Your task to perform on an android device: Go to Google Image 0: 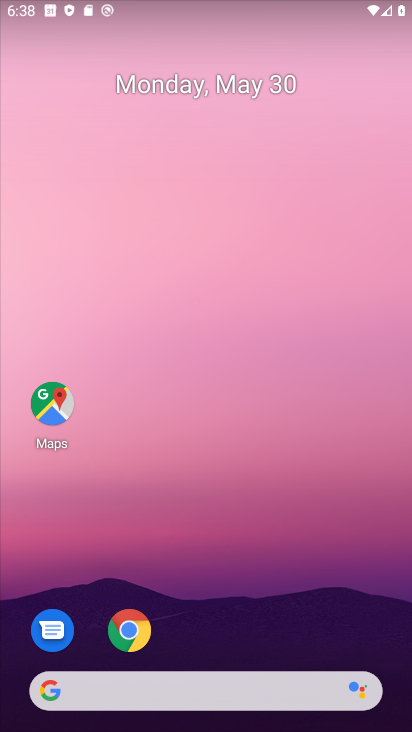
Step 0: drag from (346, 629) to (268, 9)
Your task to perform on an android device: Go to Google Image 1: 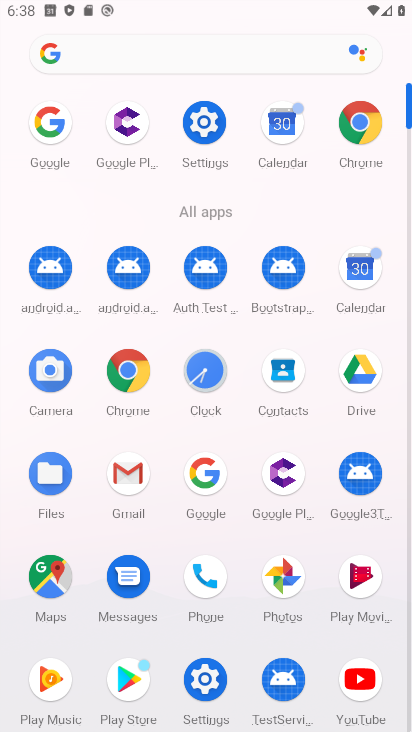
Step 1: click (202, 484)
Your task to perform on an android device: Go to Google Image 2: 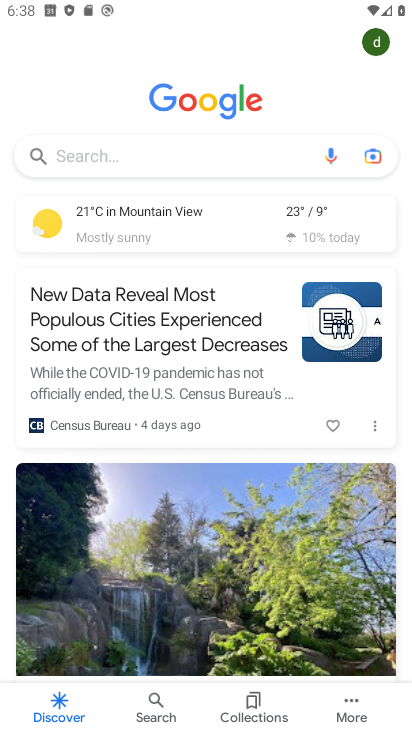
Step 2: task complete